Your task to perform on an android device: check storage Image 0: 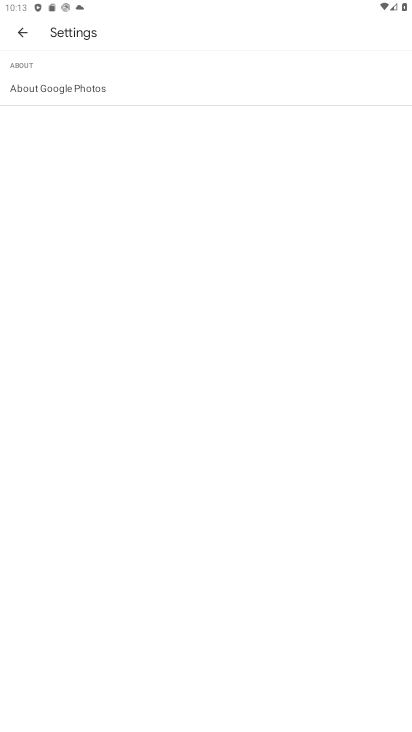
Step 0: task complete